Your task to perform on an android device: turn notification dots on Image 0: 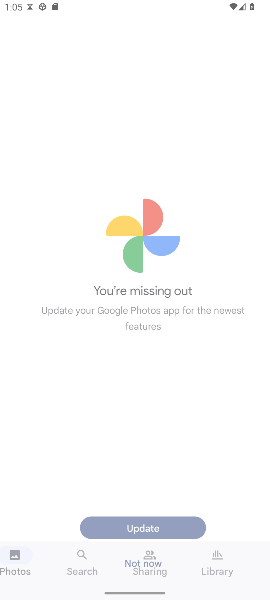
Step 0: press home button
Your task to perform on an android device: turn notification dots on Image 1: 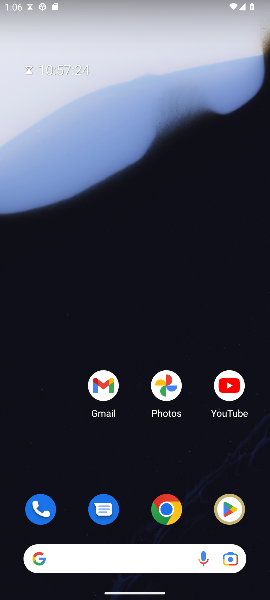
Step 1: drag from (136, 523) to (180, 122)
Your task to perform on an android device: turn notification dots on Image 2: 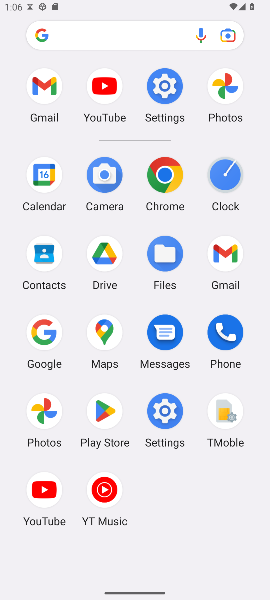
Step 2: click (164, 93)
Your task to perform on an android device: turn notification dots on Image 3: 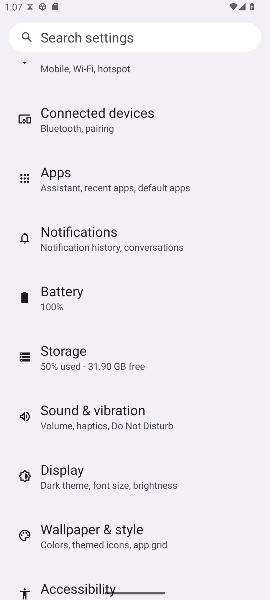
Step 3: click (94, 238)
Your task to perform on an android device: turn notification dots on Image 4: 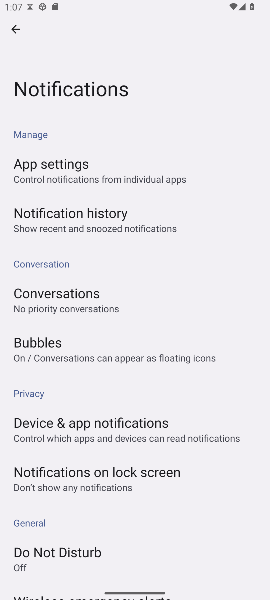
Step 4: task complete